Your task to perform on an android device: empty trash in the gmail app Image 0: 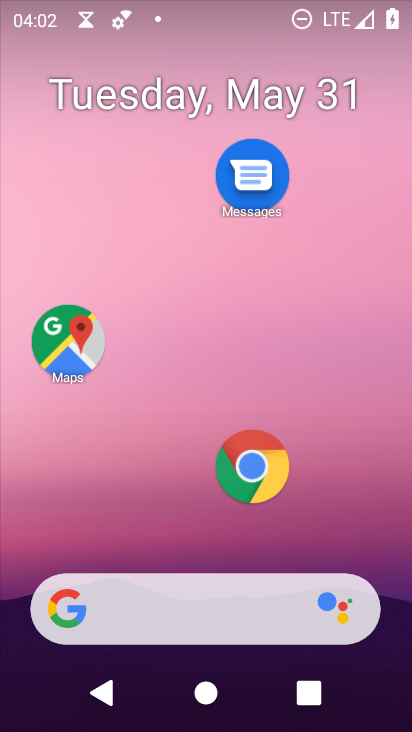
Step 0: drag from (132, 514) to (210, 28)
Your task to perform on an android device: empty trash in the gmail app Image 1: 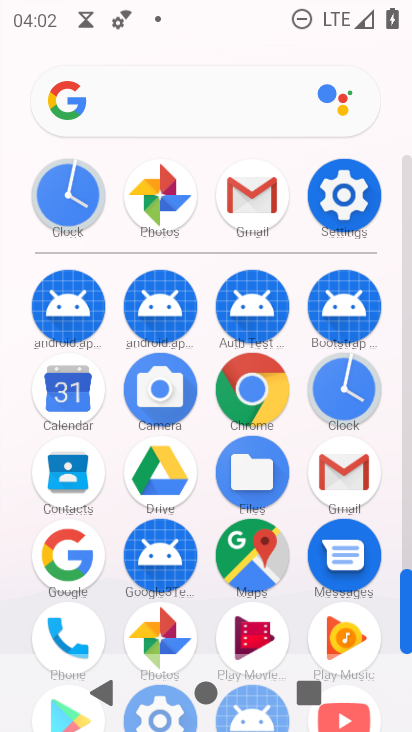
Step 1: click (263, 189)
Your task to perform on an android device: empty trash in the gmail app Image 2: 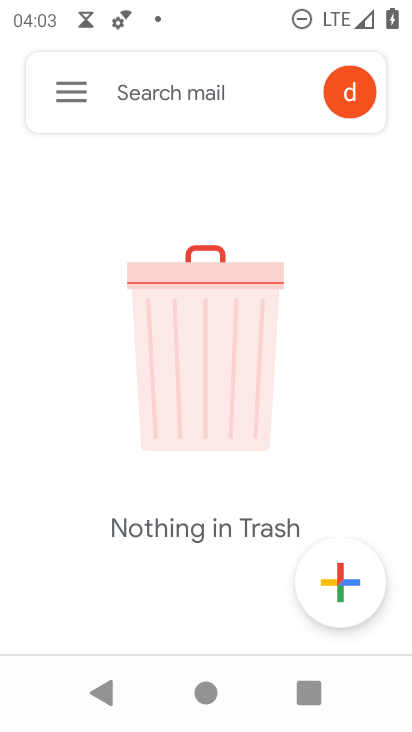
Step 2: click (62, 88)
Your task to perform on an android device: empty trash in the gmail app Image 3: 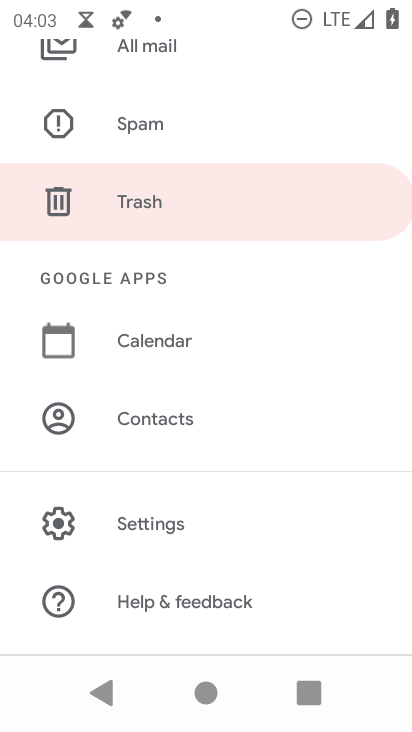
Step 3: click (161, 197)
Your task to perform on an android device: empty trash in the gmail app Image 4: 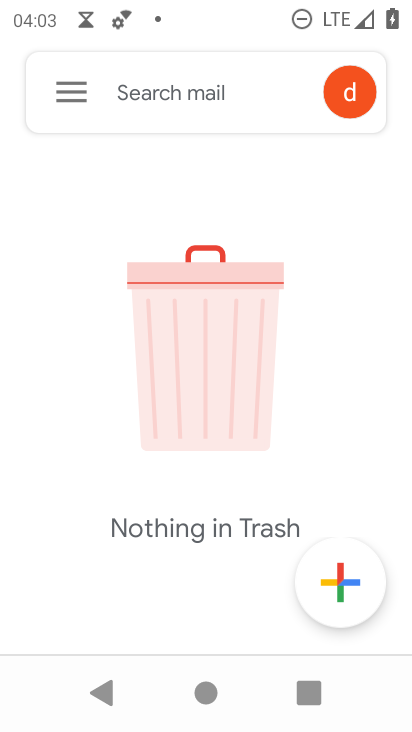
Step 4: task complete